Your task to perform on an android device: turn off location history Image 0: 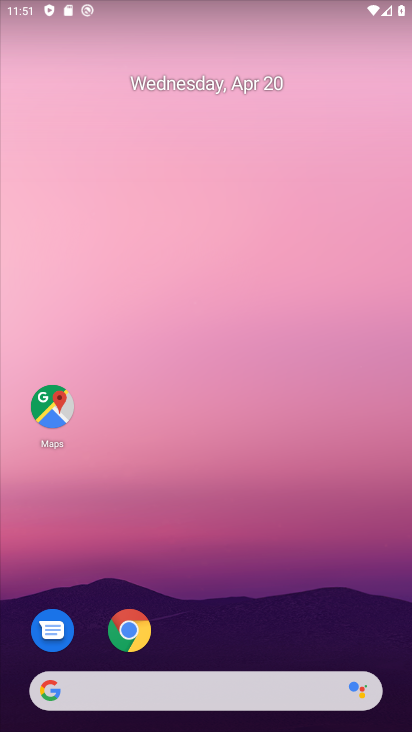
Step 0: drag from (278, 628) to (218, 79)
Your task to perform on an android device: turn off location history Image 1: 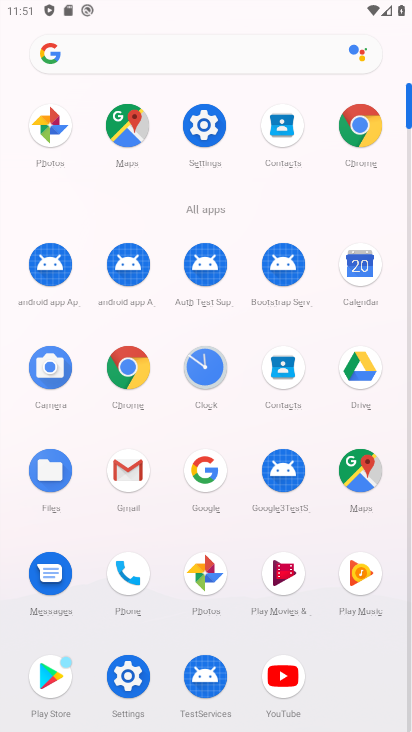
Step 1: click (347, 473)
Your task to perform on an android device: turn off location history Image 2: 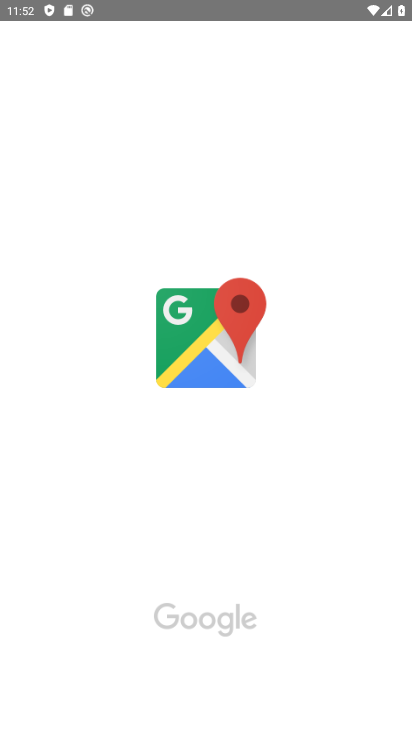
Step 2: press back button
Your task to perform on an android device: turn off location history Image 3: 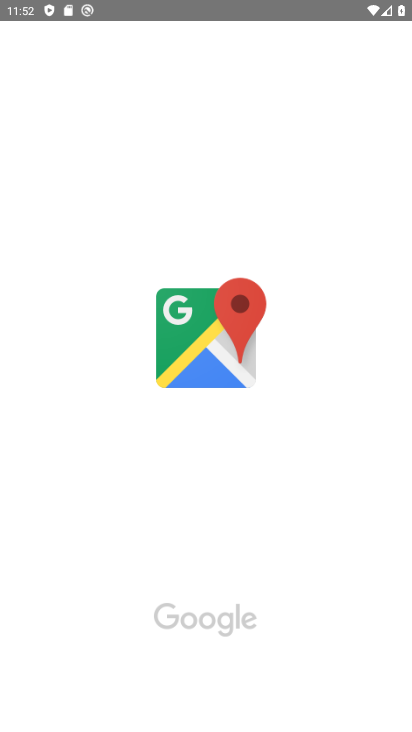
Step 3: press home button
Your task to perform on an android device: turn off location history Image 4: 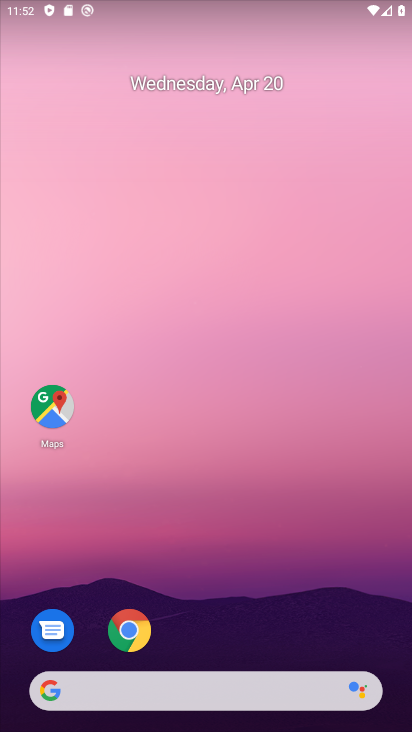
Step 4: click (62, 416)
Your task to perform on an android device: turn off location history Image 5: 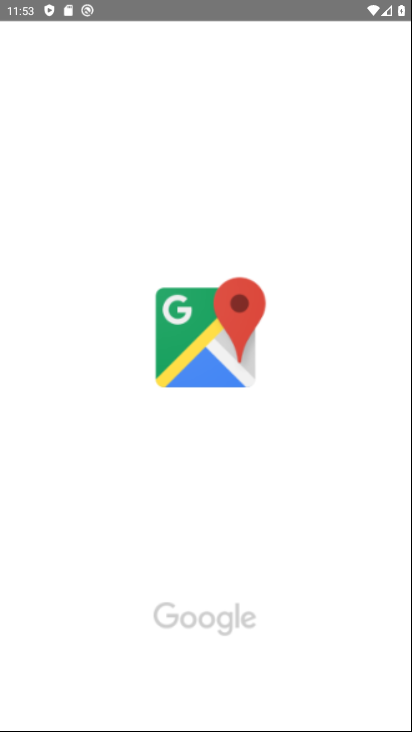
Step 5: task complete